Your task to perform on an android device: Check the news Image 0: 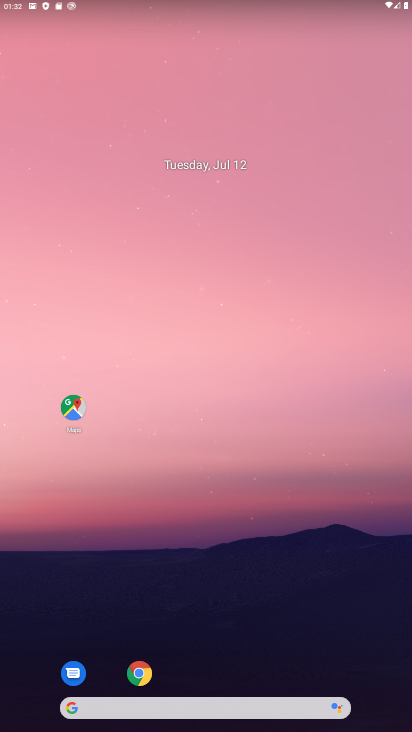
Step 0: press home button
Your task to perform on an android device: Check the news Image 1: 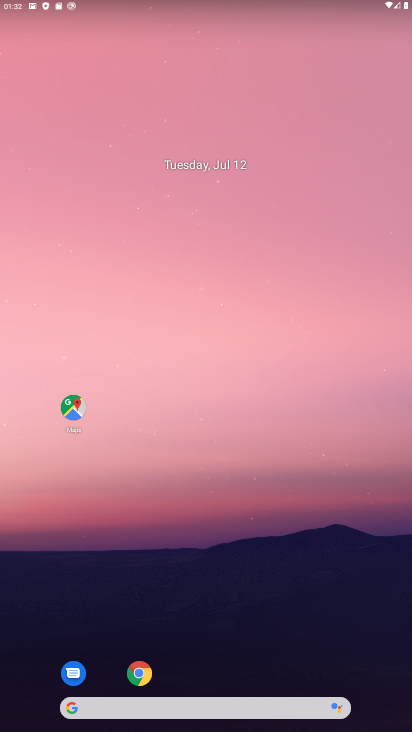
Step 1: drag from (251, 621) to (250, 91)
Your task to perform on an android device: Check the news Image 2: 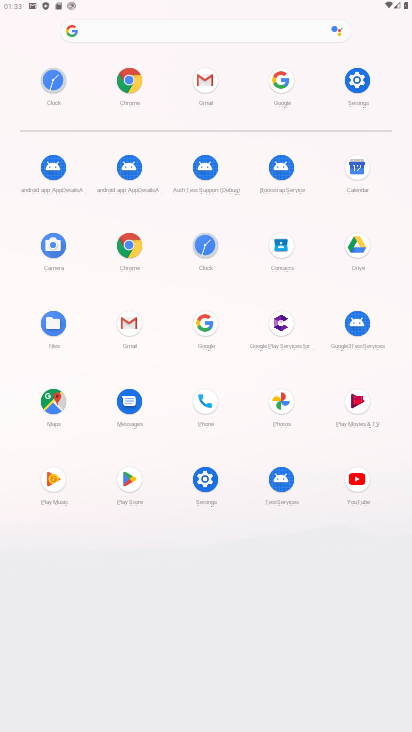
Step 2: click (199, 322)
Your task to perform on an android device: Check the news Image 3: 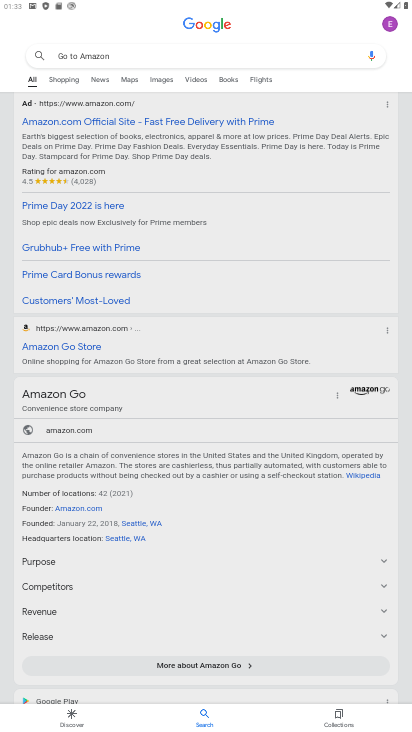
Step 3: click (136, 58)
Your task to perform on an android device: Check the news Image 4: 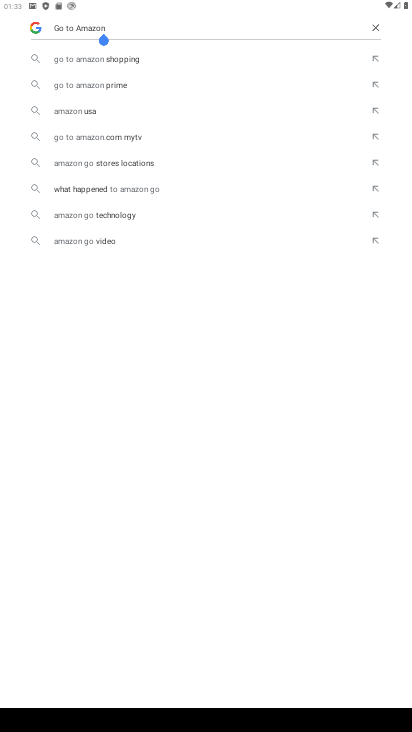
Step 4: click (376, 23)
Your task to perform on an android device: Check the news Image 5: 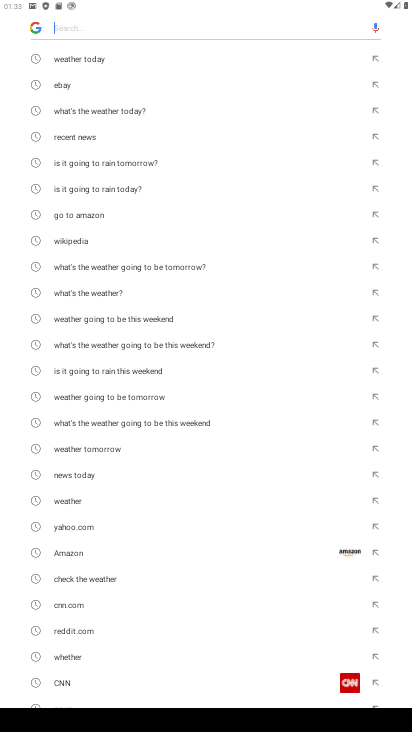
Step 5: type "news"
Your task to perform on an android device: Check the news Image 6: 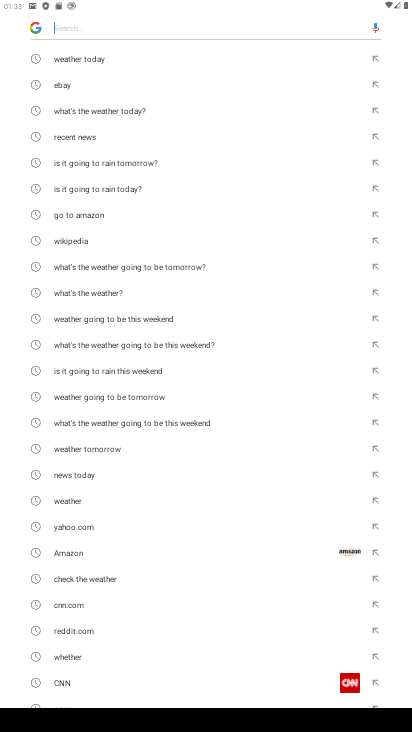
Step 6: click (115, 24)
Your task to perform on an android device: Check the news Image 7: 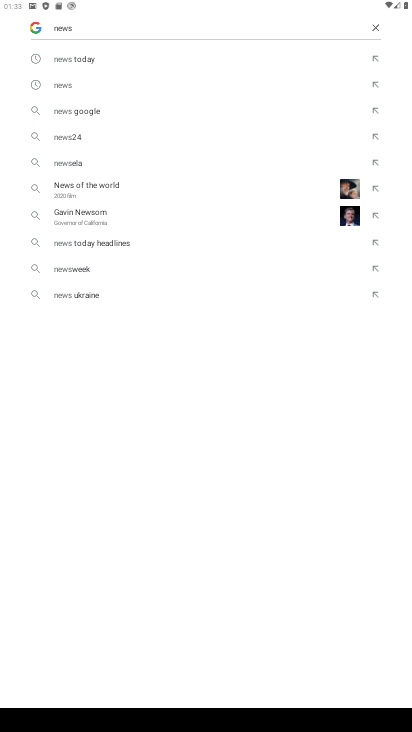
Step 7: press enter
Your task to perform on an android device: Check the news Image 8: 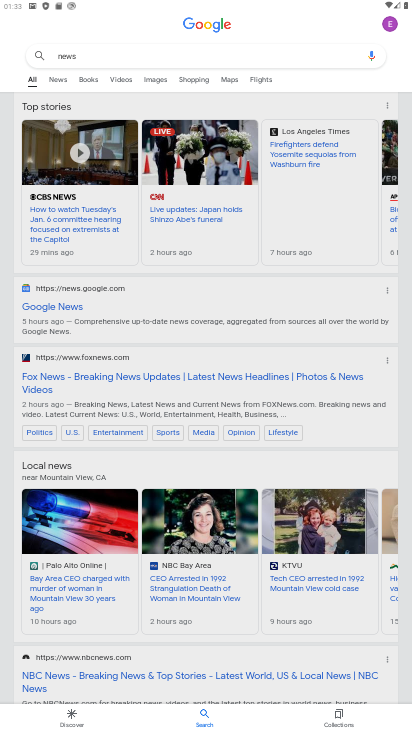
Step 8: task complete